Your task to perform on an android device: Open maps Image 0: 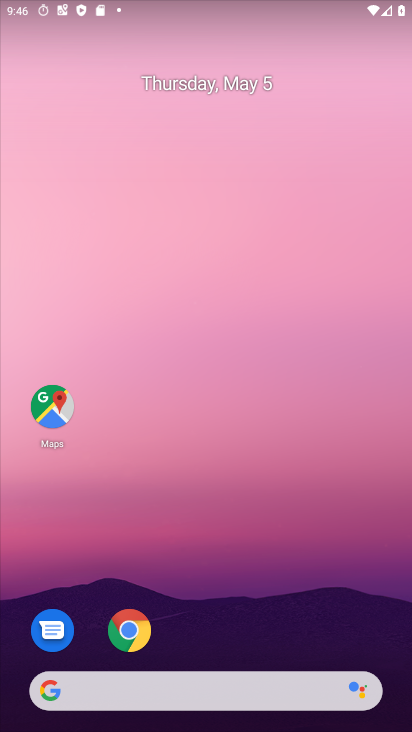
Step 0: click (53, 411)
Your task to perform on an android device: Open maps Image 1: 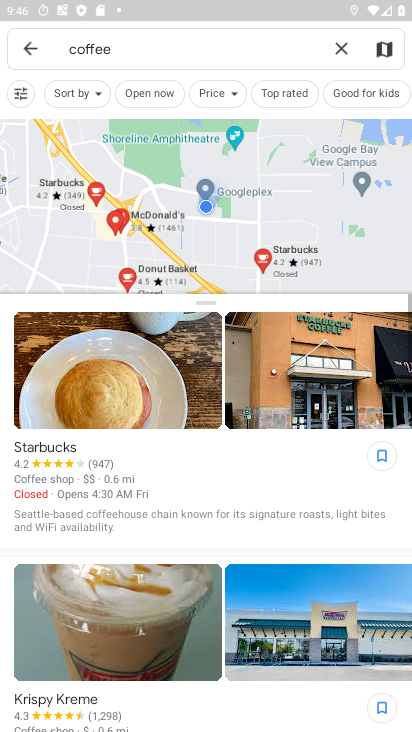
Step 1: task complete